Your task to perform on an android device: Open the Play Movies app and select the watchlist tab. Image 0: 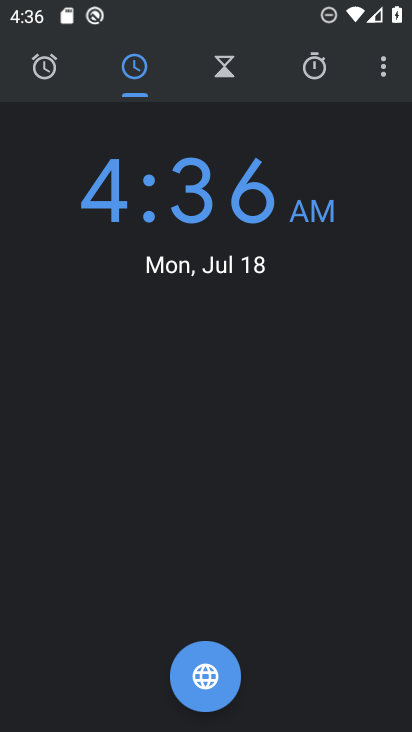
Step 0: press home button
Your task to perform on an android device: Open the Play Movies app and select the watchlist tab. Image 1: 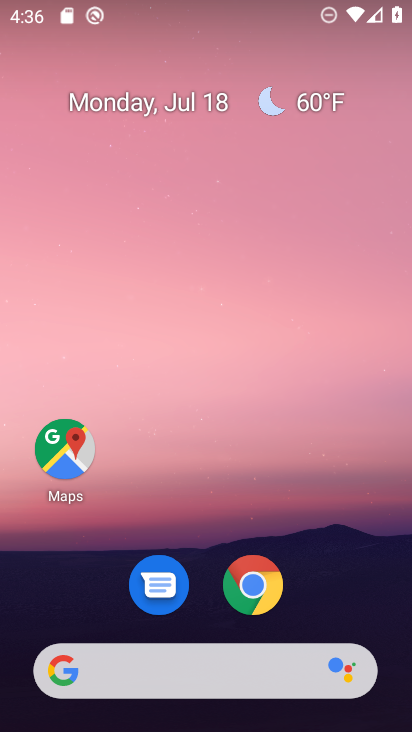
Step 1: drag from (311, 572) to (353, 61)
Your task to perform on an android device: Open the Play Movies app and select the watchlist tab. Image 2: 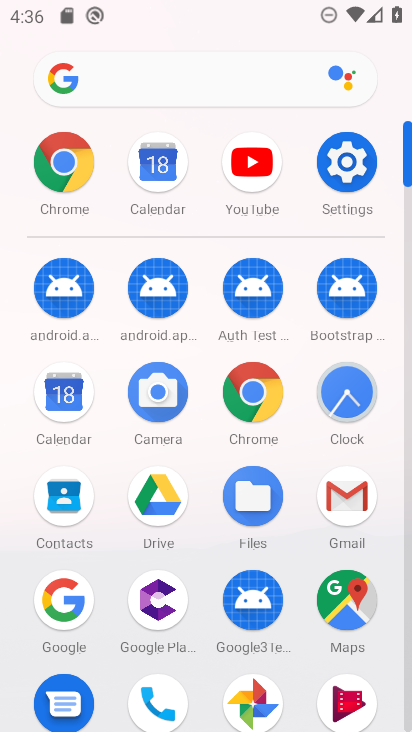
Step 2: drag from (276, 387) to (278, 257)
Your task to perform on an android device: Open the Play Movies app and select the watchlist tab. Image 3: 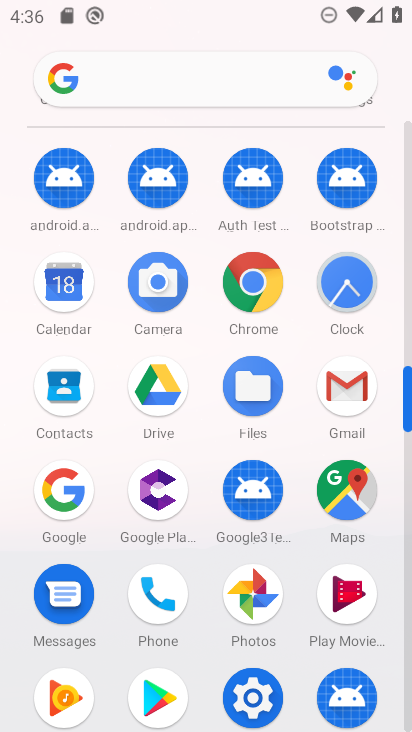
Step 3: click (346, 582)
Your task to perform on an android device: Open the Play Movies app and select the watchlist tab. Image 4: 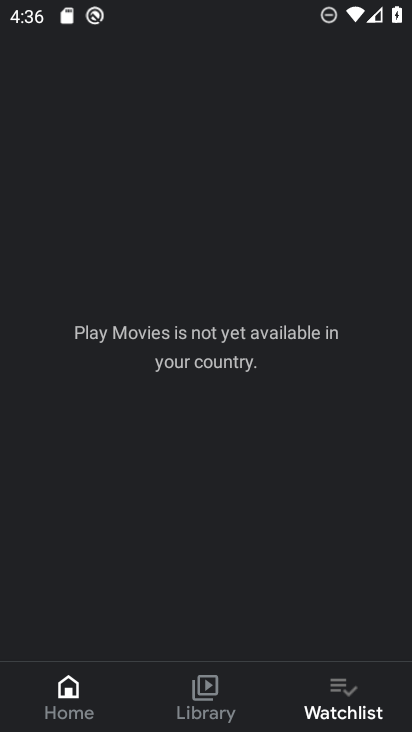
Step 4: click (329, 727)
Your task to perform on an android device: Open the Play Movies app and select the watchlist tab. Image 5: 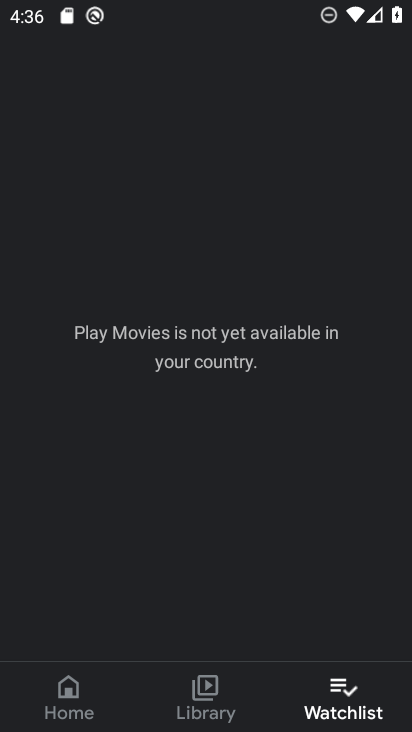
Step 5: task complete